Your task to perform on an android device: Open Maps and search for coffee Image 0: 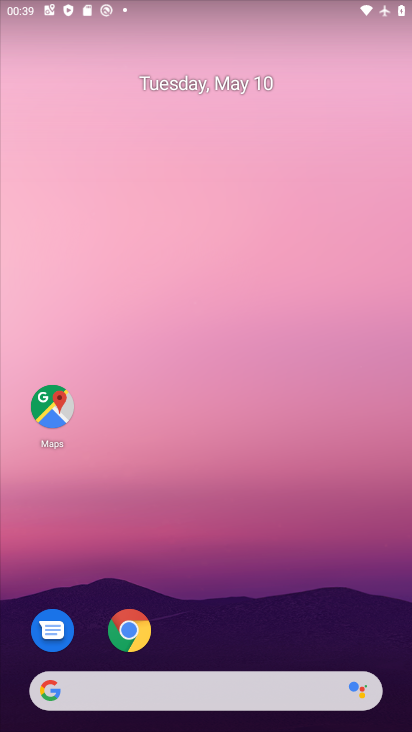
Step 0: drag from (203, 716) to (201, 243)
Your task to perform on an android device: Open Maps and search for coffee Image 1: 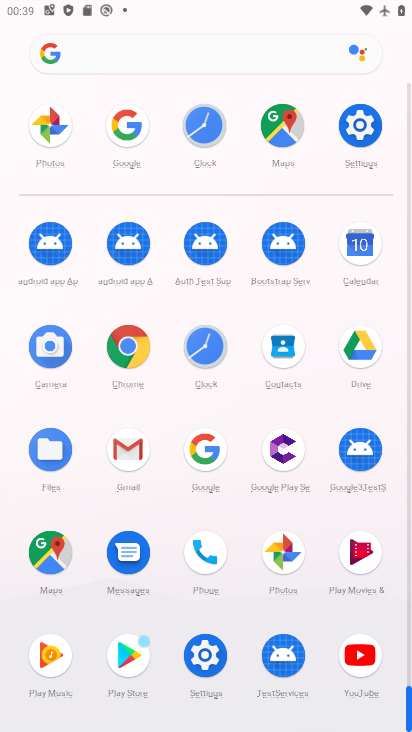
Step 1: click (46, 547)
Your task to perform on an android device: Open Maps and search for coffee Image 2: 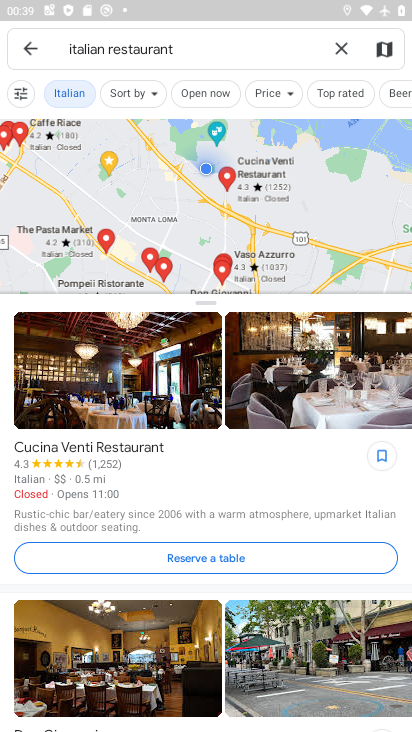
Step 2: click (341, 43)
Your task to perform on an android device: Open Maps and search for coffee Image 3: 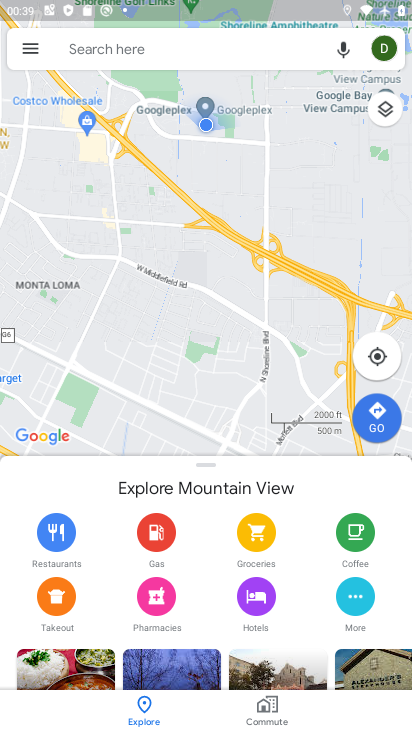
Step 3: click (171, 46)
Your task to perform on an android device: Open Maps and search for coffee Image 4: 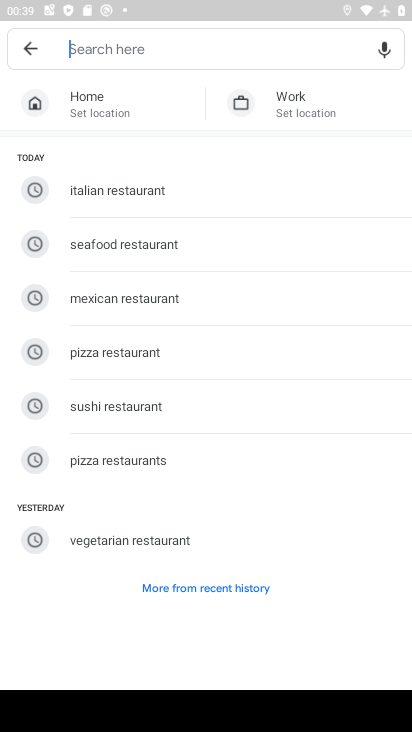
Step 4: type "coffee"
Your task to perform on an android device: Open Maps and search for coffee Image 5: 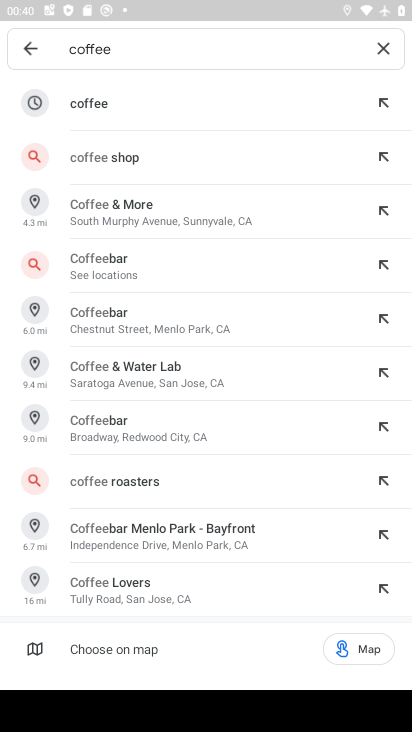
Step 5: click (100, 98)
Your task to perform on an android device: Open Maps and search for coffee Image 6: 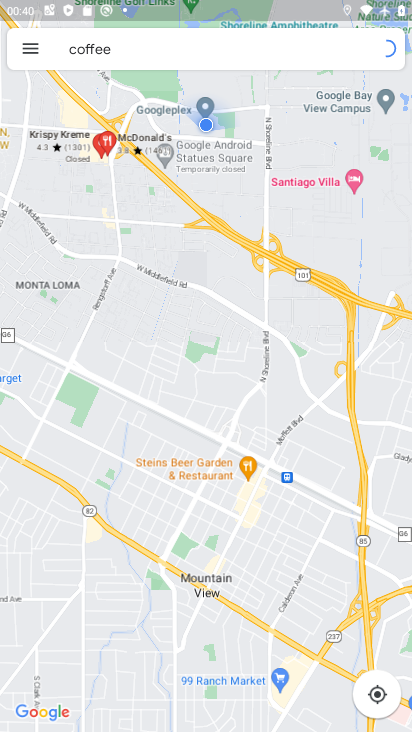
Step 6: task complete